Your task to perform on an android device: toggle show notifications on the lock screen Image 0: 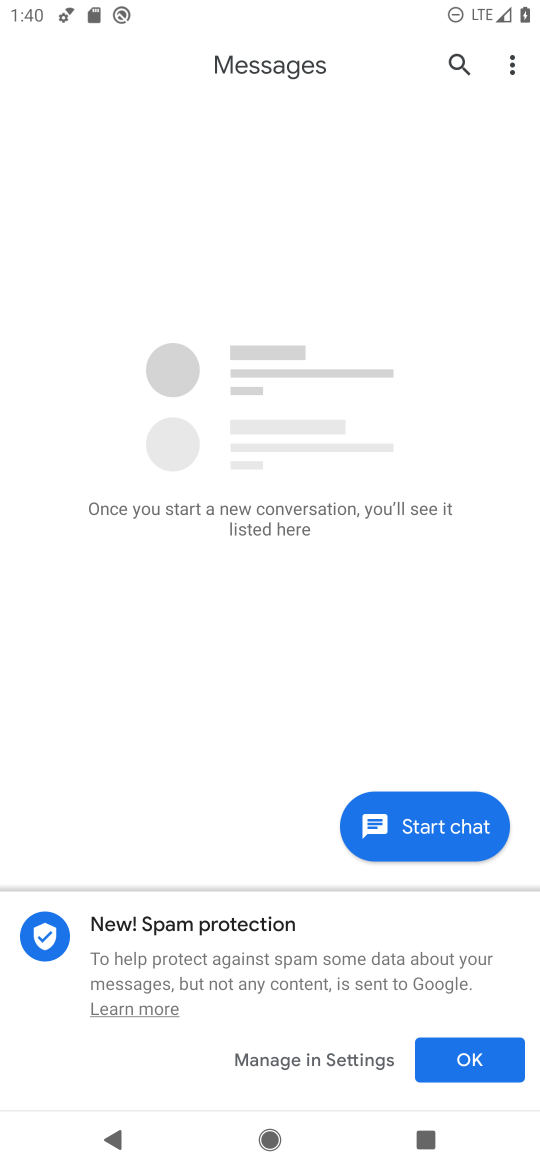
Step 0: press home button
Your task to perform on an android device: toggle show notifications on the lock screen Image 1: 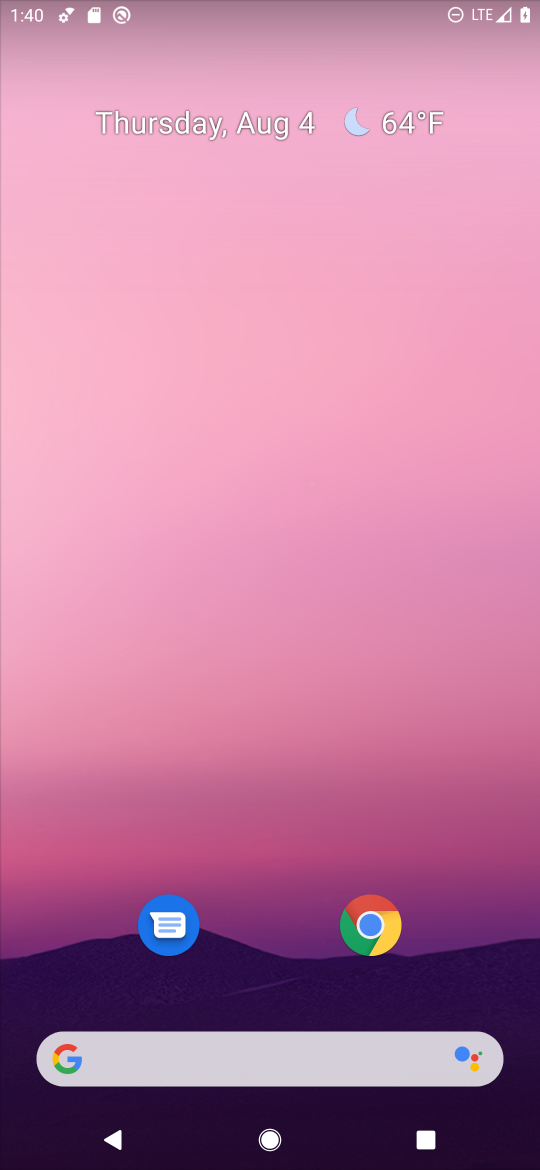
Step 1: drag from (263, 705) to (354, 0)
Your task to perform on an android device: toggle show notifications on the lock screen Image 2: 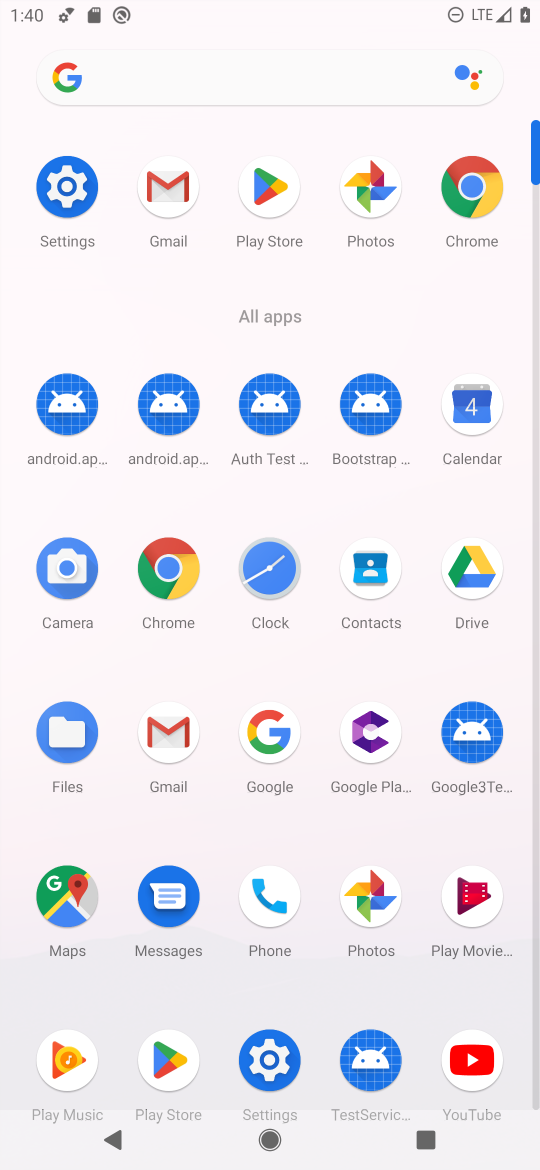
Step 2: click (257, 1057)
Your task to perform on an android device: toggle show notifications on the lock screen Image 3: 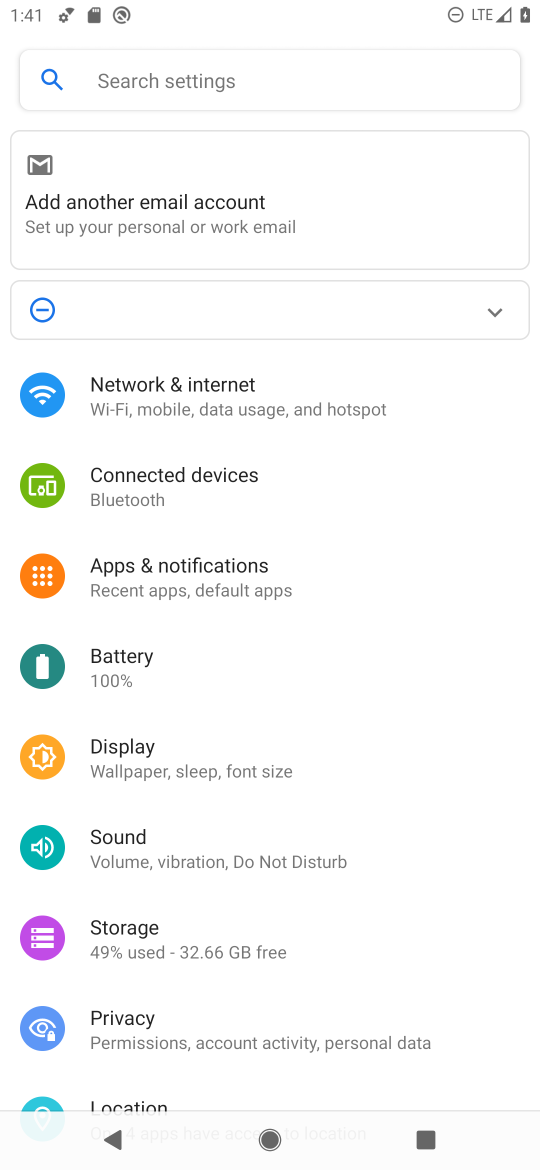
Step 3: click (367, 597)
Your task to perform on an android device: toggle show notifications on the lock screen Image 4: 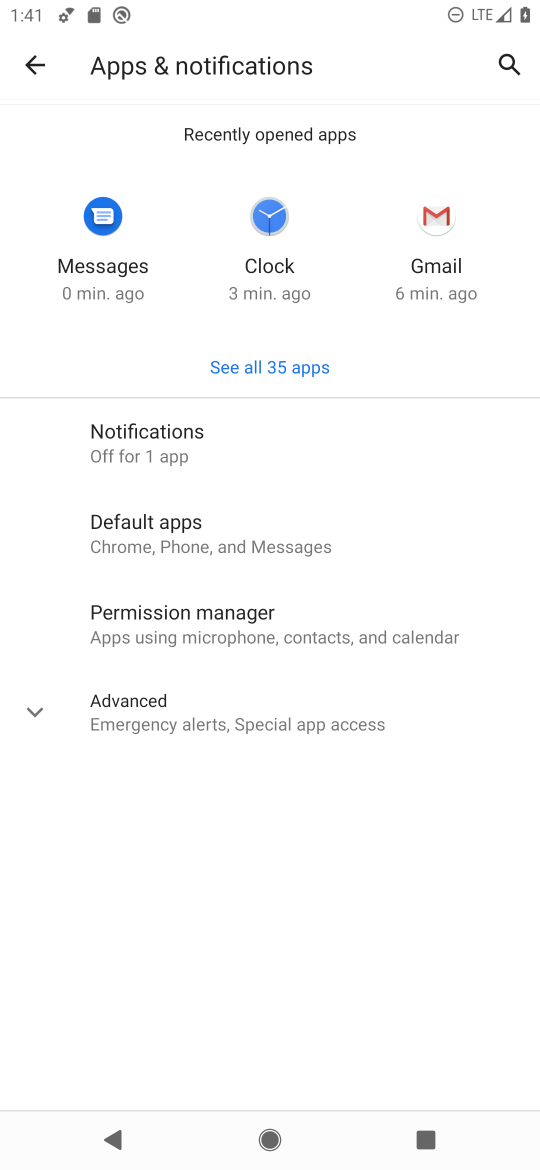
Step 4: task complete